Your task to perform on an android device: Go to Android settings Image 0: 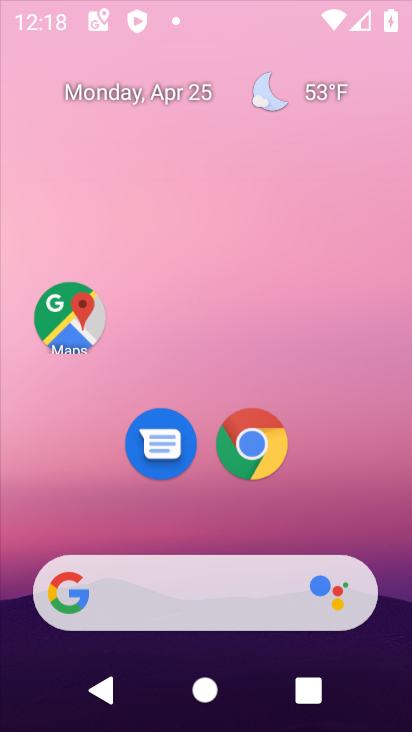
Step 0: drag from (228, 6) to (271, 18)
Your task to perform on an android device: Go to Android settings Image 1: 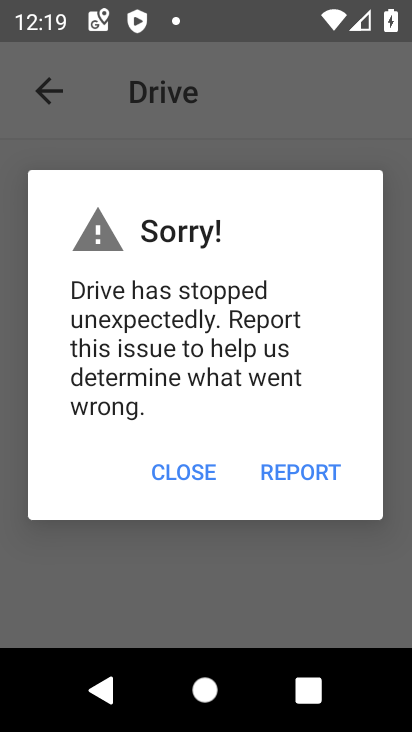
Step 1: click (177, 456)
Your task to perform on an android device: Go to Android settings Image 2: 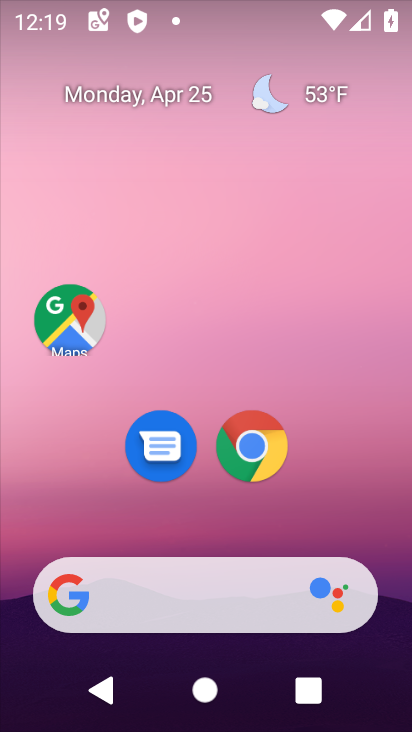
Step 2: drag from (209, 465) to (247, 0)
Your task to perform on an android device: Go to Android settings Image 3: 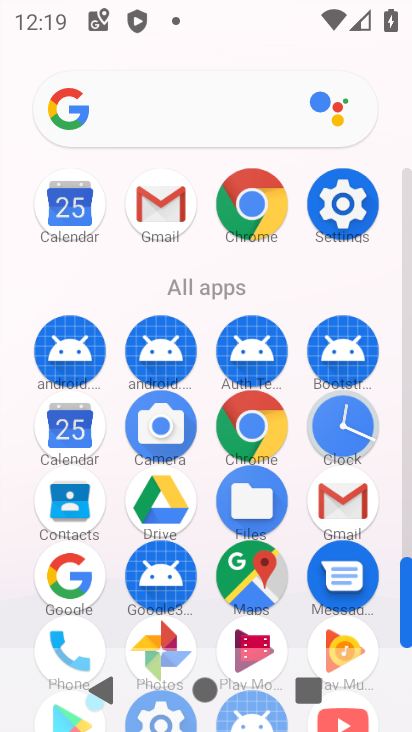
Step 3: click (336, 206)
Your task to perform on an android device: Go to Android settings Image 4: 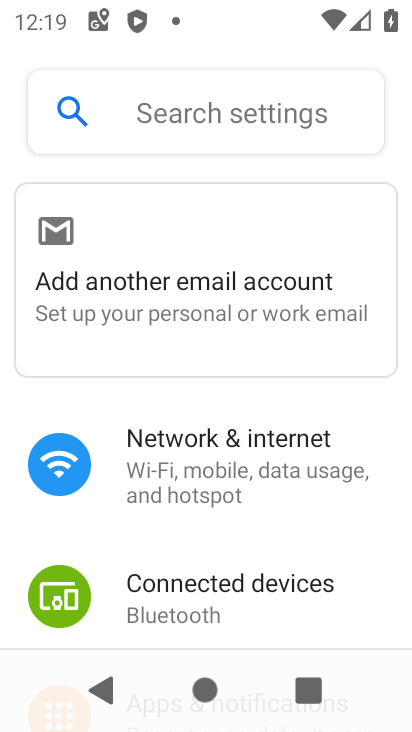
Step 4: drag from (248, 560) to (287, 152)
Your task to perform on an android device: Go to Android settings Image 5: 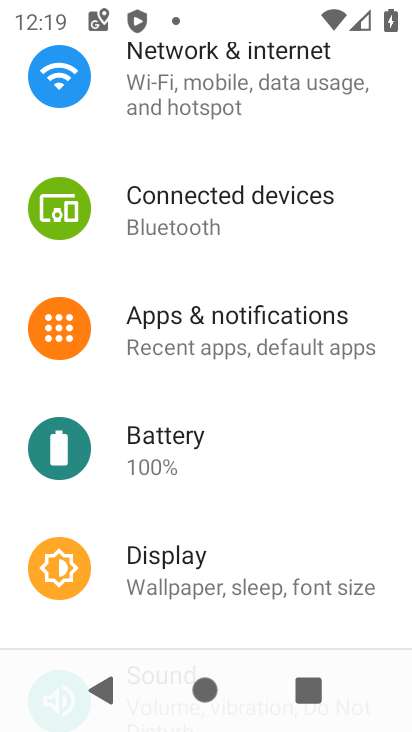
Step 5: drag from (228, 529) to (297, 96)
Your task to perform on an android device: Go to Android settings Image 6: 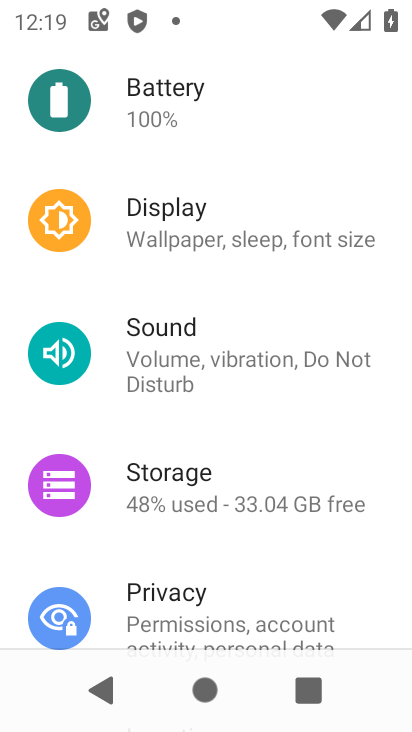
Step 6: drag from (211, 478) to (301, 11)
Your task to perform on an android device: Go to Android settings Image 7: 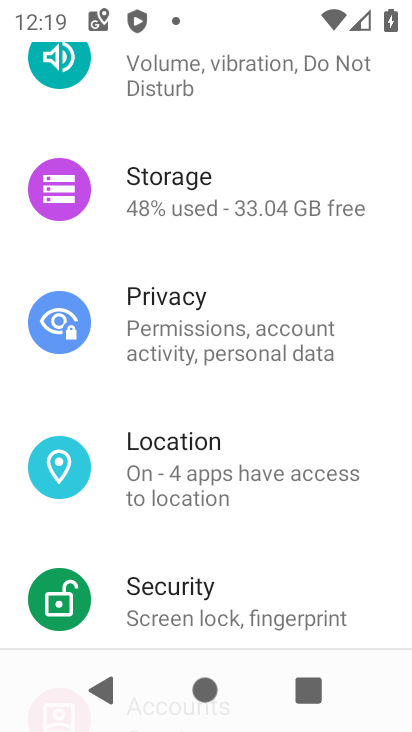
Step 7: drag from (210, 490) to (317, 6)
Your task to perform on an android device: Go to Android settings Image 8: 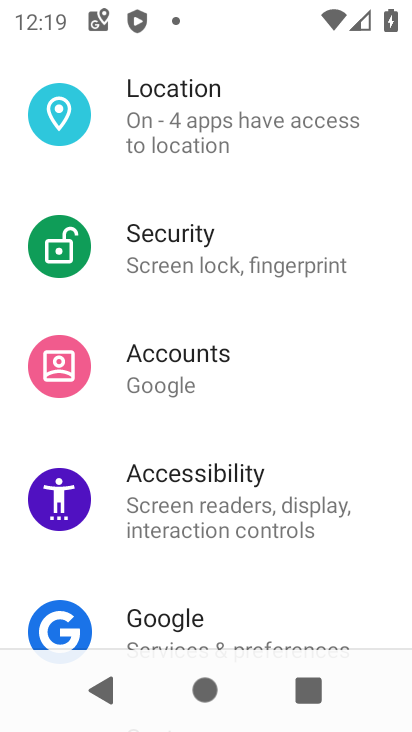
Step 8: drag from (221, 559) to (300, 9)
Your task to perform on an android device: Go to Android settings Image 9: 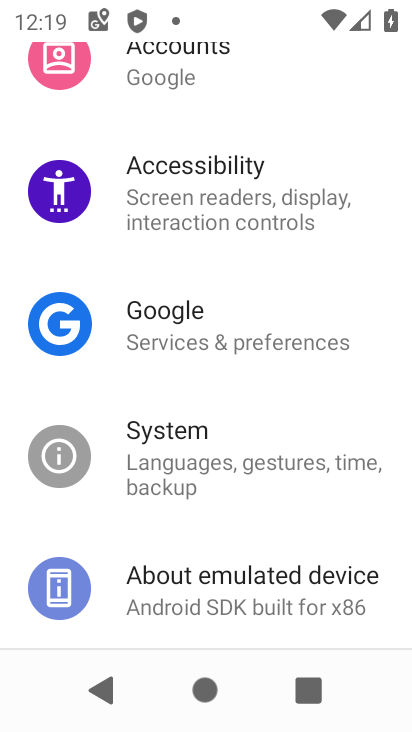
Step 9: click (262, 603)
Your task to perform on an android device: Go to Android settings Image 10: 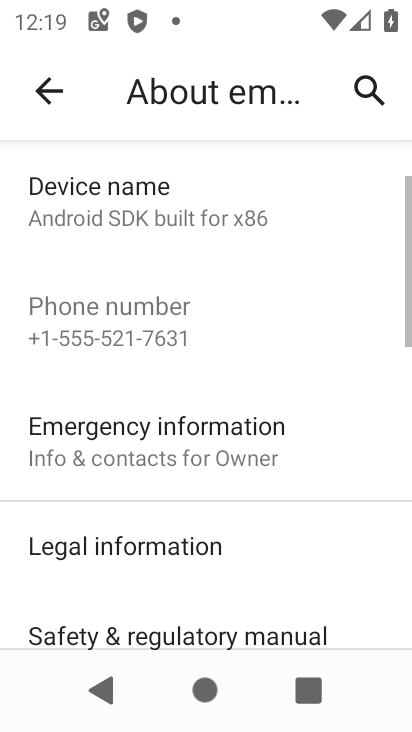
Step 10: drag from (170, 604) to (231, 257)
Your task to perform on an android device: Go to Android settings Image 11: 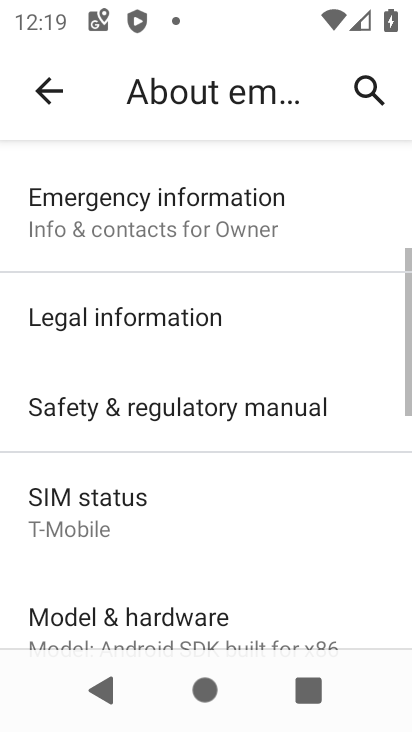
Step 11: drag from (178, 572) to (228, 271)
Your task to perform on an android device: Go to Android settings Image 12: 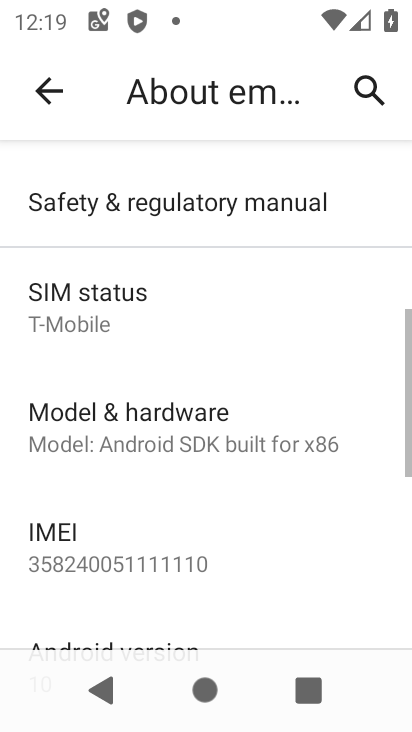
Step 12: drag from (93, 487) to (175, 31)
Your task to perform on an android device: Go to Android settings Image 13: 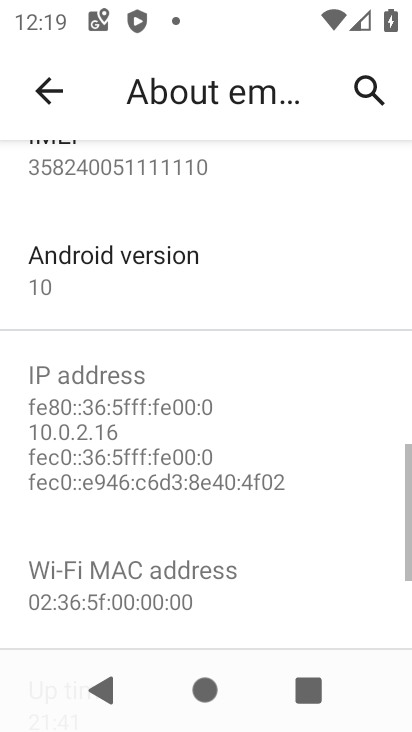
Step 13: click (116, 272)
Your task to perform on an android device: Go to Android settings Image 14: 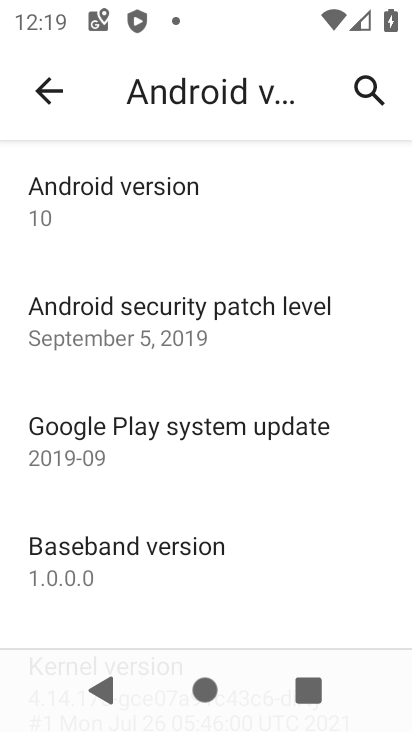
Step 14: task complete